Your task to perform on an android device: turn off notifications in google photos Image 0: 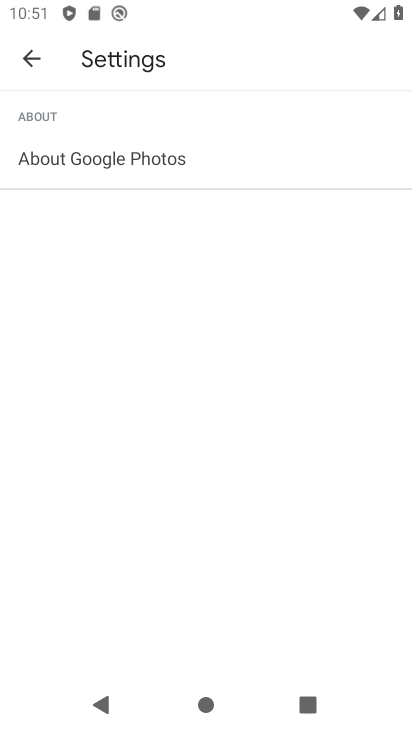
Step 0: press home button
Your task to perform on an android device: turn off notifications in google photos Image 1: 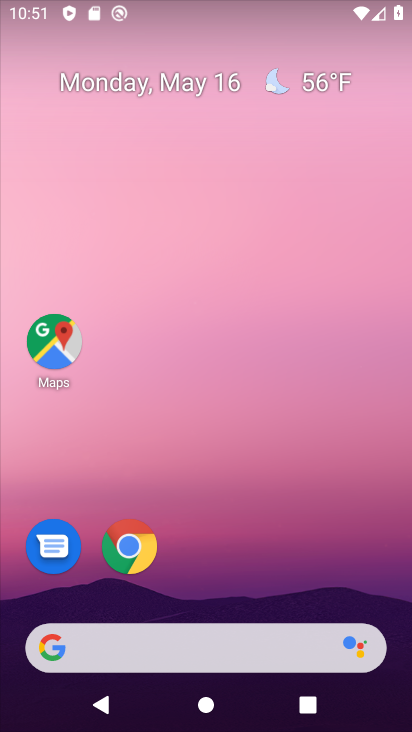
Step 1: drag from (376, 517) to (394, 31)
Your task to perform on an android device: turn off notifications in google photos Image 2: 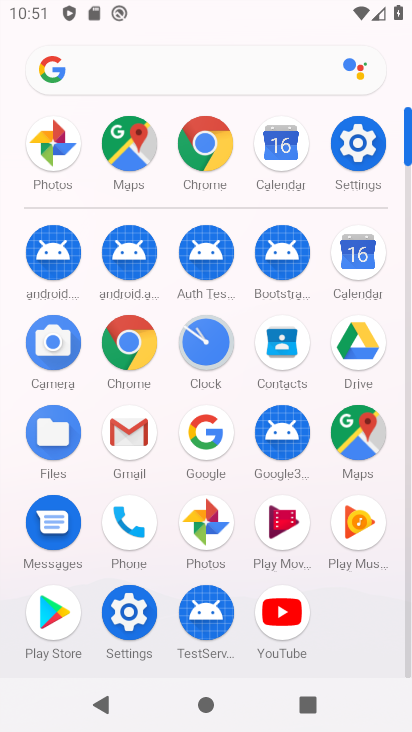
Step 2: click (185, 540)
Your task to perform on an android device: turn off notifications in google photos Image 3: 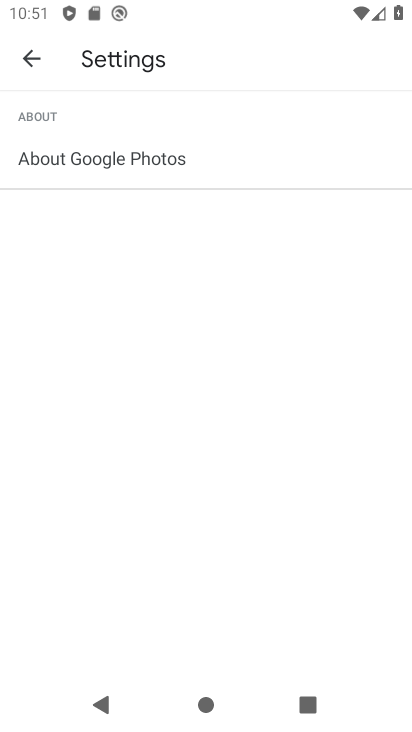
Step 3: click (39, 66)
Your task to perform on an android device: turn off notifications in google photos Image 4: 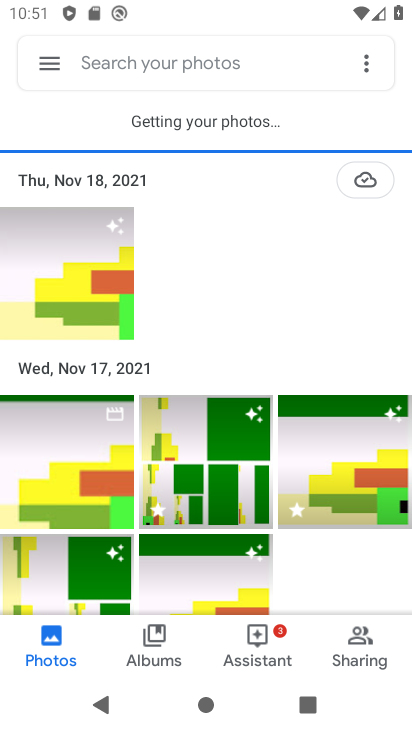
Step 4: click (56, 73)
Your task to perform on an android device: turn off notifications in google photos Image 5: 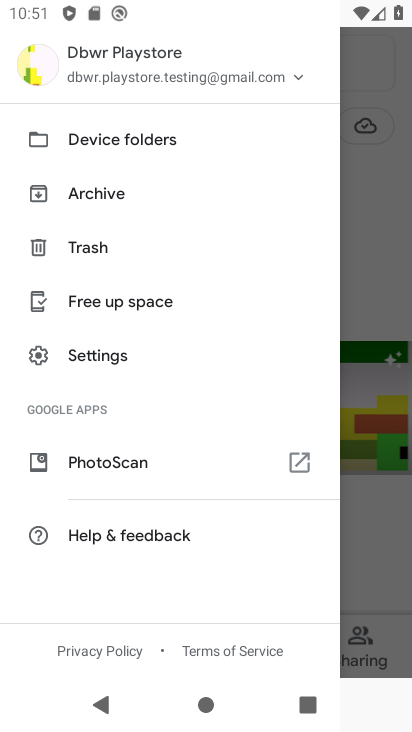
Step 5: click (110, 362)
Your task to perform on an android device: turn off notifications in google photos Image 6: 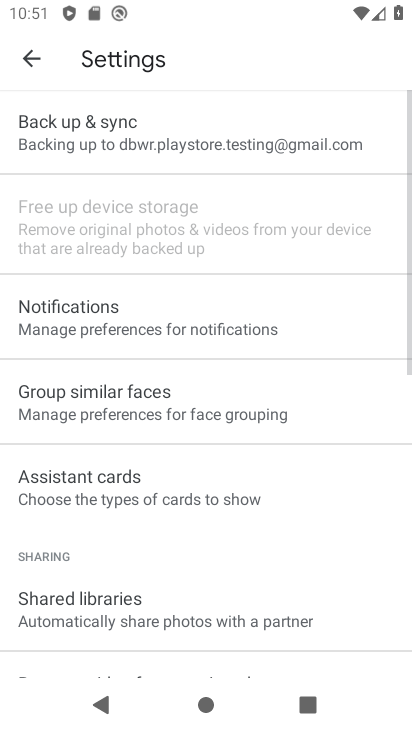
Step 6: click (115, 334)
Your task to perform on an android device: turn off notifications in google photos Image 7: 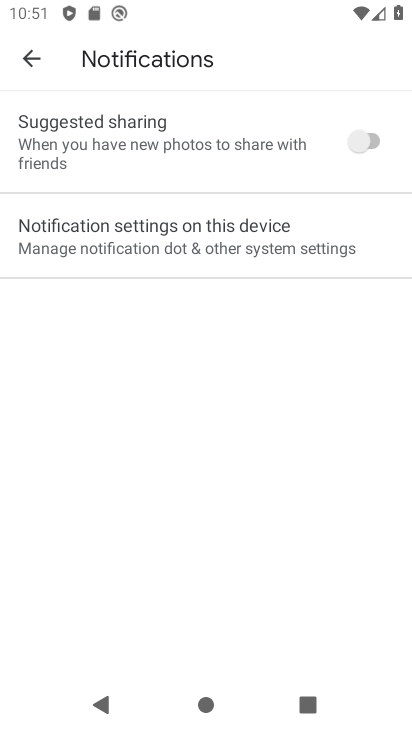
Step 7: click (211, 246)
Your task to perform on an android device: turn off notifications in google photos Image 8: 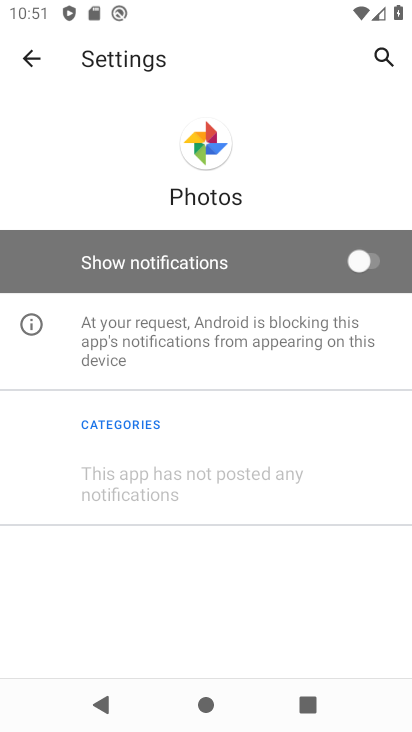
Step 8: task complete